Your task to perform on an android device: toggle location history Image 0: 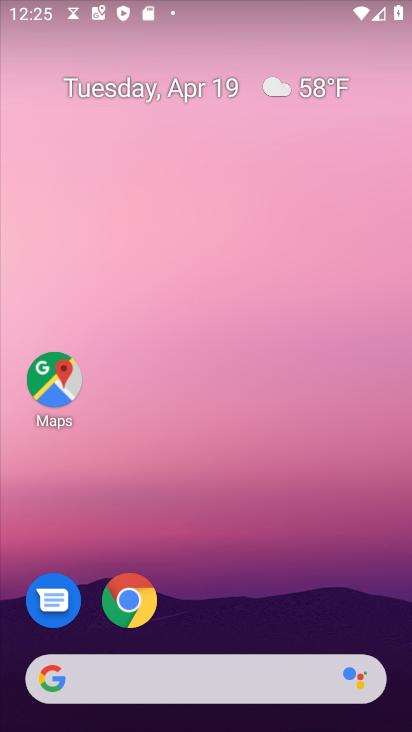
Step 0: drag from (270, 683) to (206, 20)
Your task to perform on an android device: toggle location history Image 1: 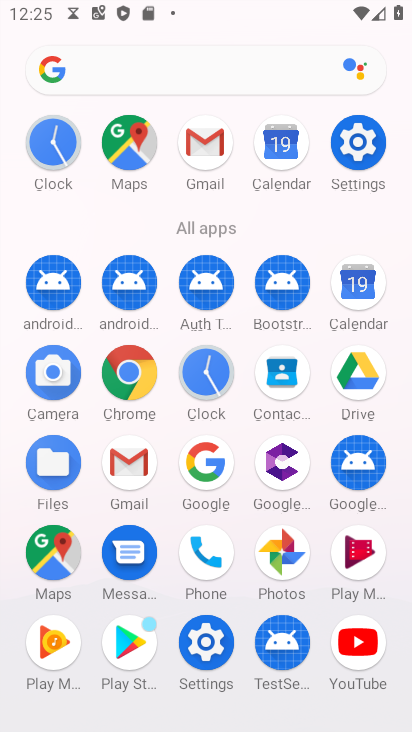
Step 1: click (204, 660)
Your task to perform on an android device: toggle location history Image 2: 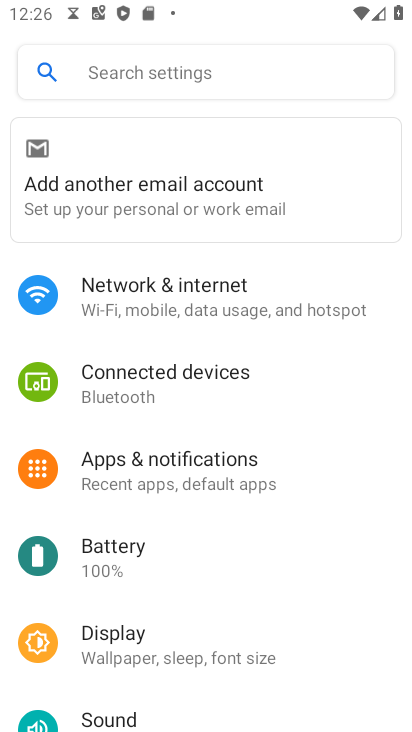
Step 2: drag from (204, 660) to (142, 263)
Your task to perform on an android device: toggle location history Image 3: 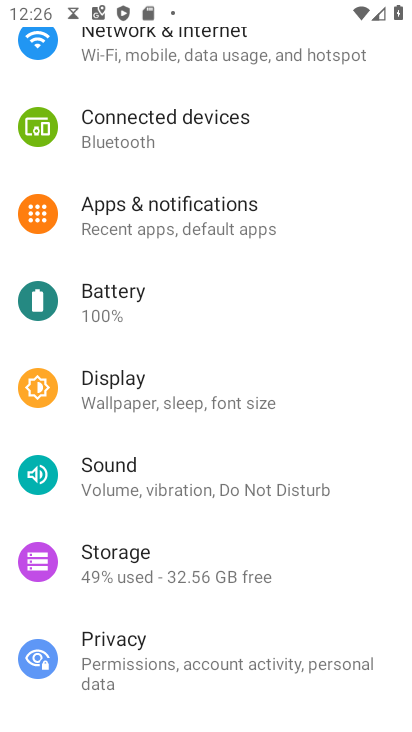
Step 3: drag from (162, 572) to (102, 149)
Your task to perform on an android device: toggle location history Image 4: 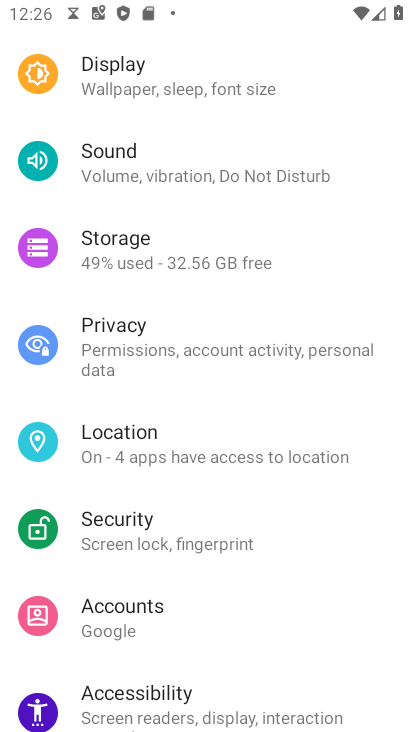
Step 4: click (184, 466)
Your task to perform on an android device: toggle location history Image 5: 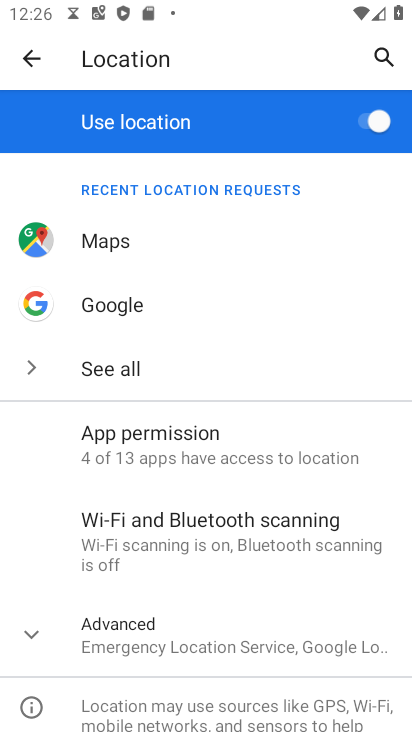
Step 5: click (216, 653)
Your task to perform on an android device: toggle location history Image 6: 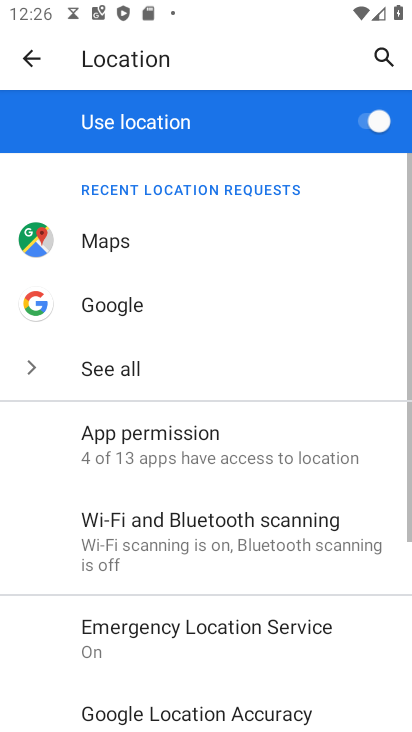
Step 6: drag from (226, 612) to (176, 248)
Your task to perform on an android device: toggle location history Image 7: 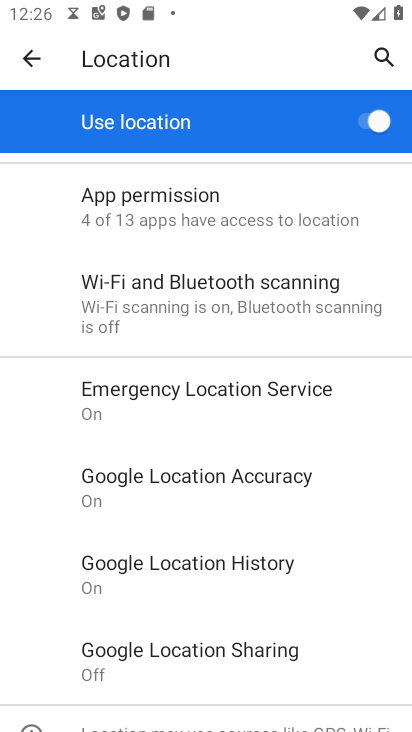
Step 7: click (205, 566)
Your task to perform on an android device: toggle location history Image 8: 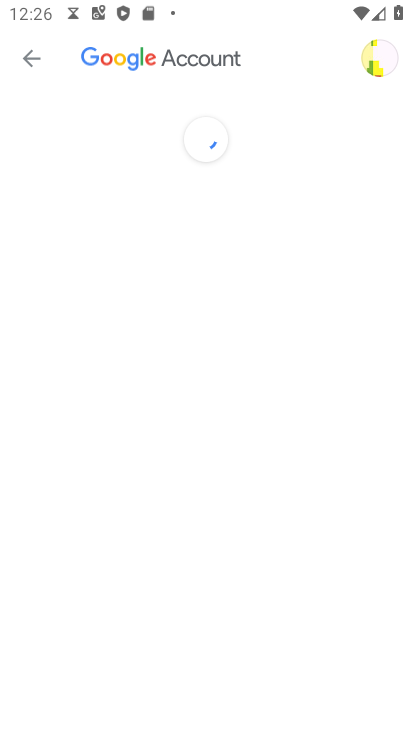
Step 8: task complete